Your task to perform on an android device: turn smart compose on in the gmail app Image 0: 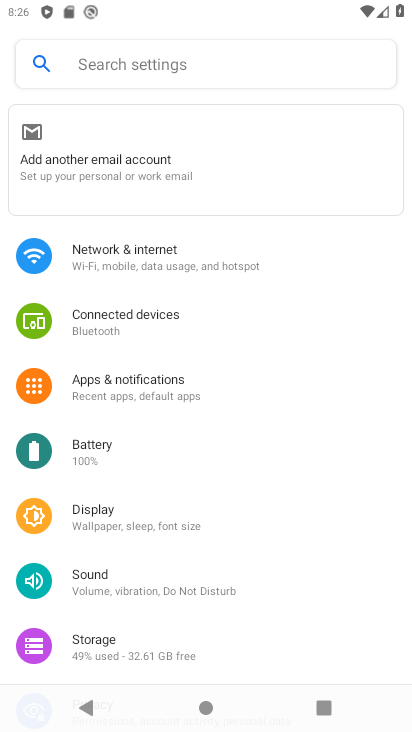
Step 0: press home button
Your task to perform on an android device: turn smart compose on in the gmail app Image 1: 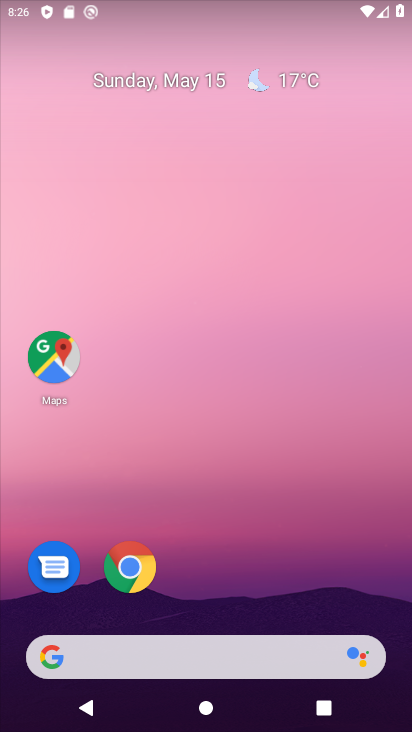
Step 1: drag from (182, 649) to (184, 153)
Your task to perform on an android device: turn smart compose on in the gmail app Image 2: 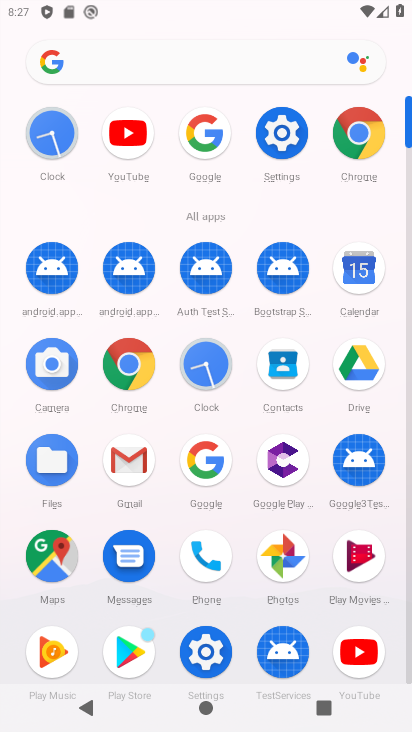
Step 2: click (135, 474)
Your task to perform on an android device: turn smart compose on in the gmail app Image 3: 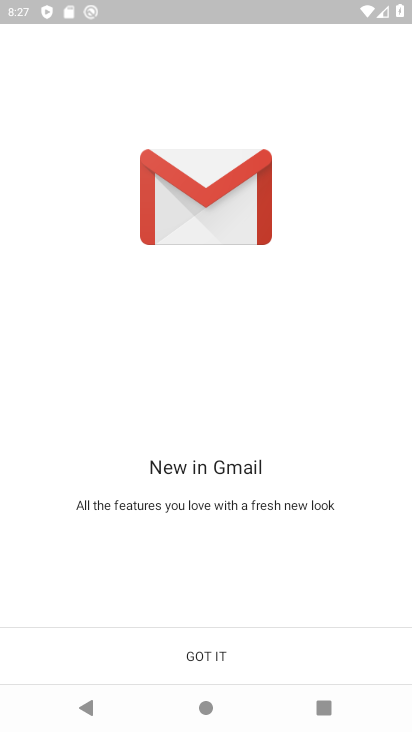
Step 3: click (199, 640)
Your task to perform on an android device: turn smart compose on in the gmail app Image 4: 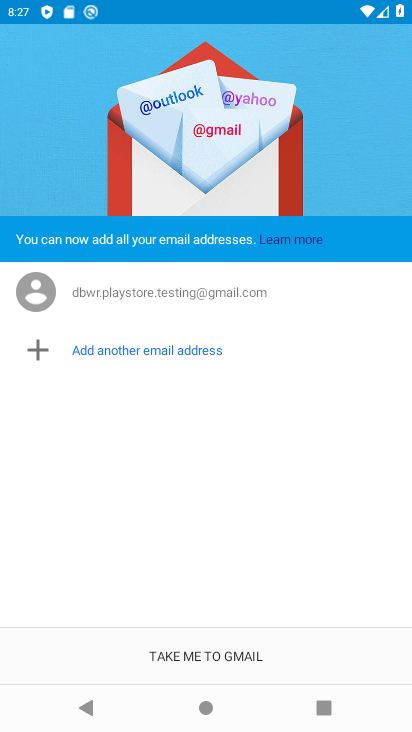
Step 4: click (199, 640)
Your task to perform on an android device: turn smart compose on in the gmail app Image 5: 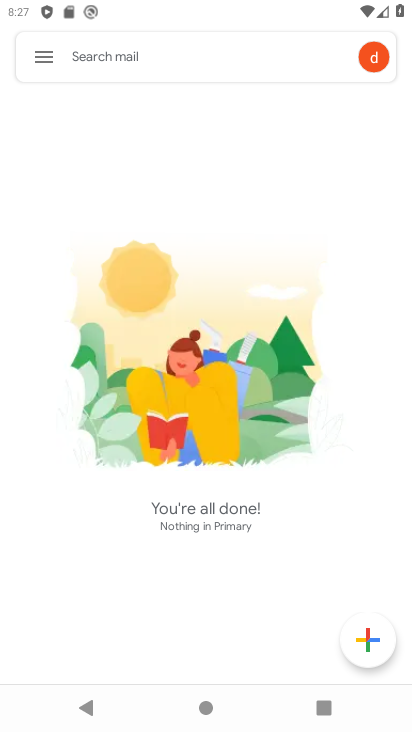
Step 5: click (45, 73)
Your task to perform on an android device: turn smart compose on in the gmail app Image 6: 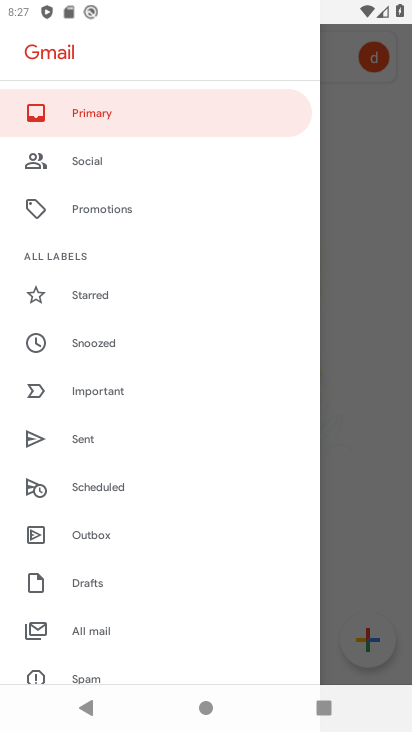
Step 6: drag from (90, 622) to (123, 352)
Your task to perform on an android device: turn smart compose on in the gmail app Image 7: 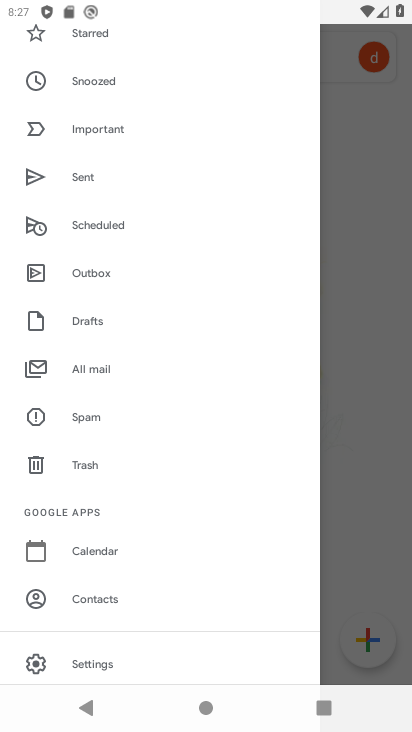
Step 7: click (85, 662)
Your task to perform on an android device: turn smart compose on in the gmail app Image 8: 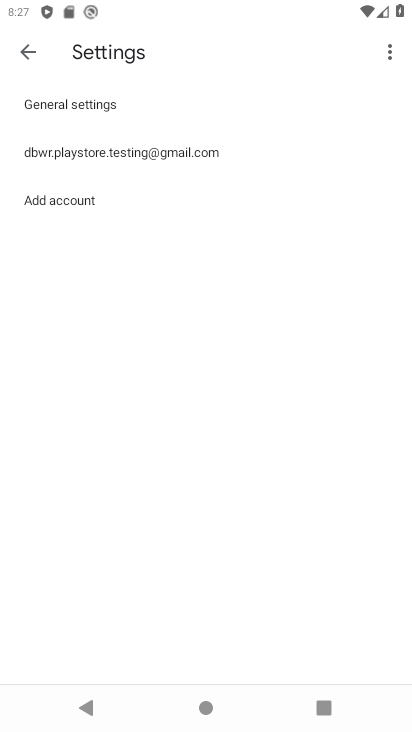
Step 8: click (184, 147)
Your task to perform on an android device: turn smart compose on in the gmail app Image 9: 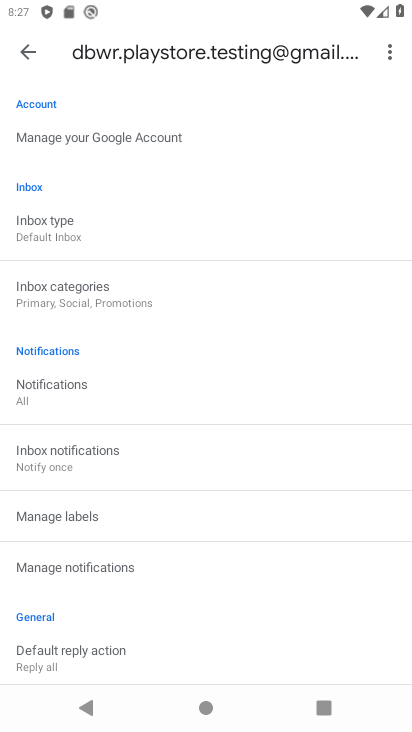
Step 9: task complete